Your task to perform on an android device: toggle location history Image 0: 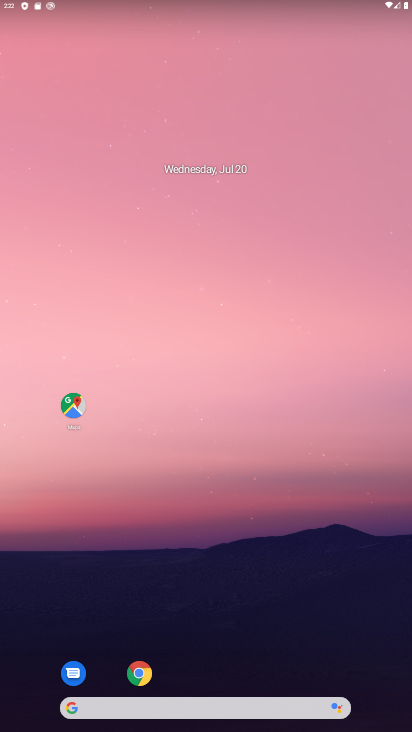
Step 0: drag from (248, 625) to (291, 30)
Your task to perform on an android device: toggle location history Image 1: 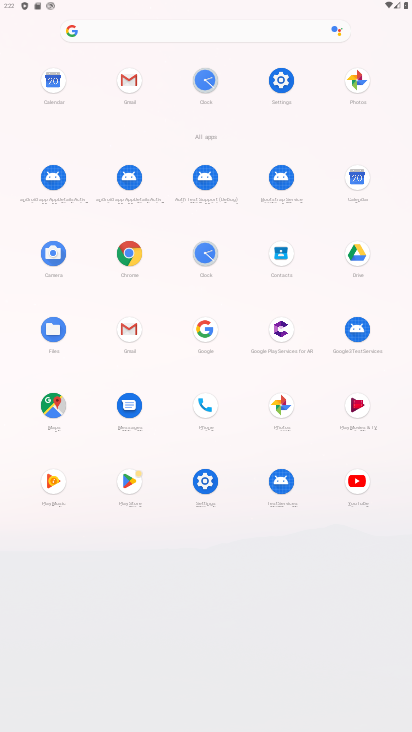
Step 1: click (202, 477)
Your task to perform on an android device: toggle location history Image 2: 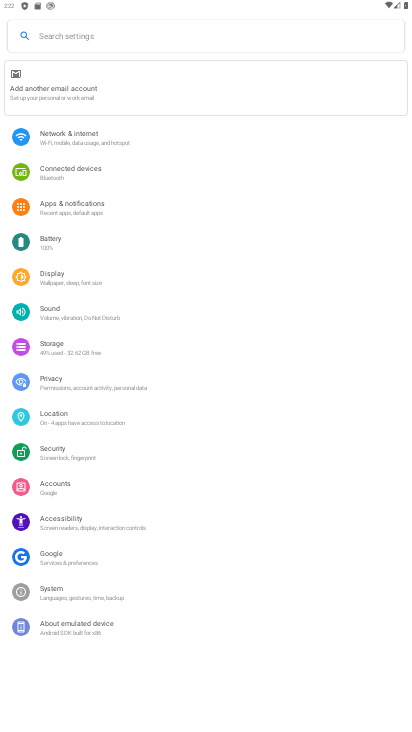
Step 2: click (82, 417)
Your task to perform on an android device: toggle location history Image 3: 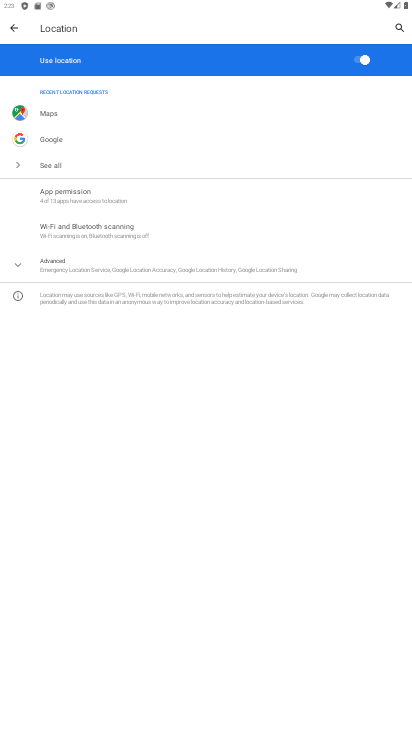
Step 3: click (90, 264)
Your task to perform on an android device: toggle location history Image 4: 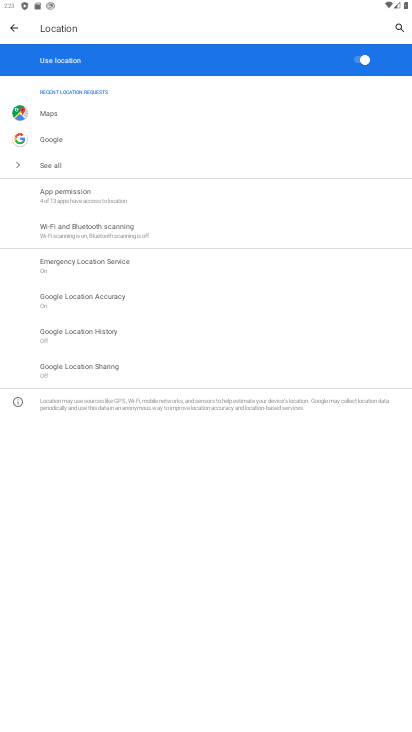
Step 4: click (116, 331)
Your task to perform on an android device: toggle location history Image 5: 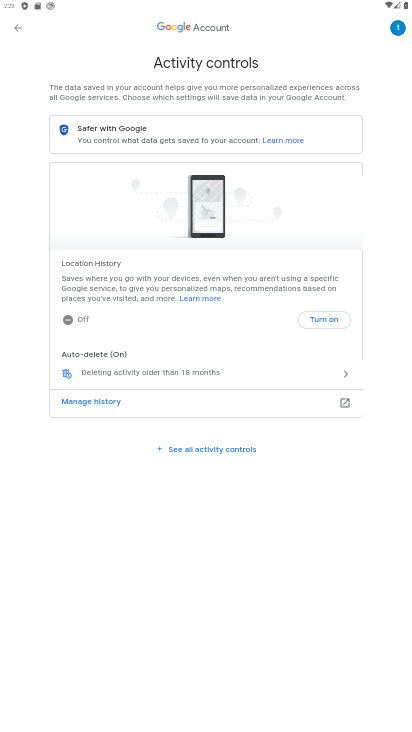
Step 5: click (330, 312)
Your task to perform on an android device: toggle location history Image 6: 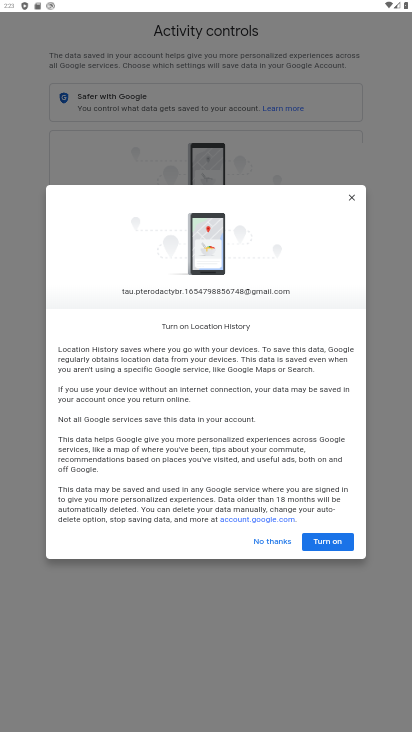
Step 6: click (336, 543)
Your task to perform on an android device: toggle location history Image 7: 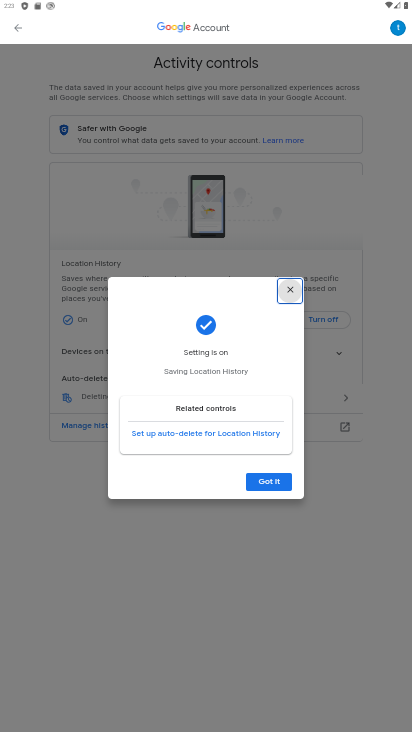
Step 7: task complete